Your task to perform on an android device: Open the phone app and click the voicemail tab. Image 0: 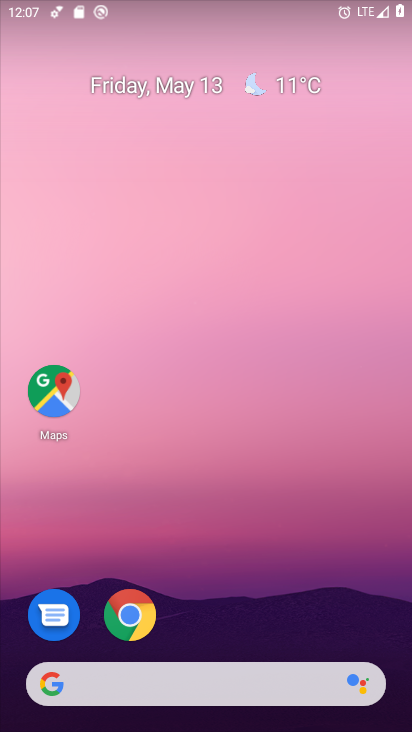
Step 0: drag from (293, 478) to (305, 33)
Your task to perform on an android device: Open the phone app and click the voicemail tab. Image 1: 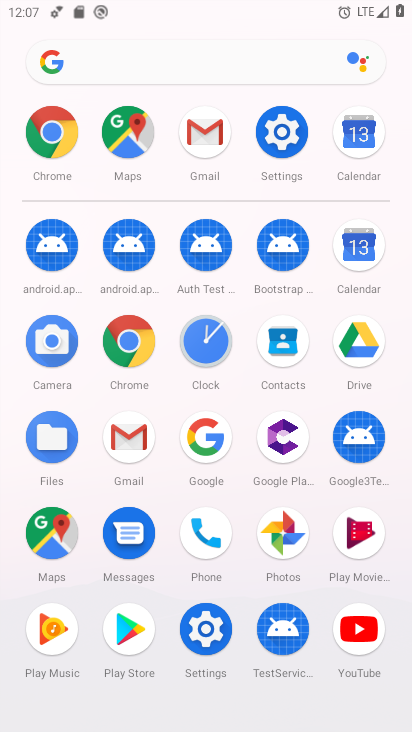
Step 1: click (199, 517)
Your task to perform on an android device: Open the phone app and click the voicemail tab. Image 2: 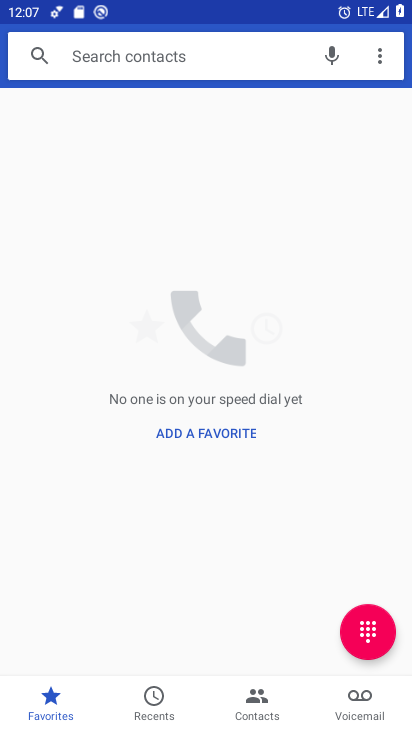
Step 2: click (344, 702)
Your task to perform on an android device: Open the phone app and click the voicemail tab. Image 3: 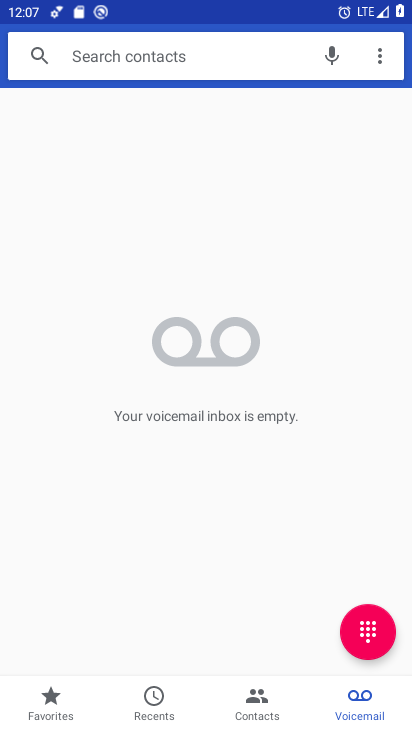
Step 3: task complete